Your task to perform on an android device: Search for vegetarian restaurants on Maps Image 0: 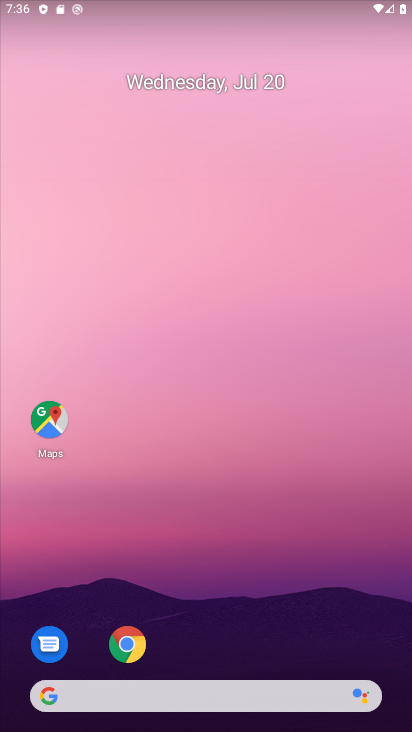
Step 0: drag from (198, 678) to (179, 353)
Your task to perform on an android device: Search for vegetarian restaurants on Maps Image 1: 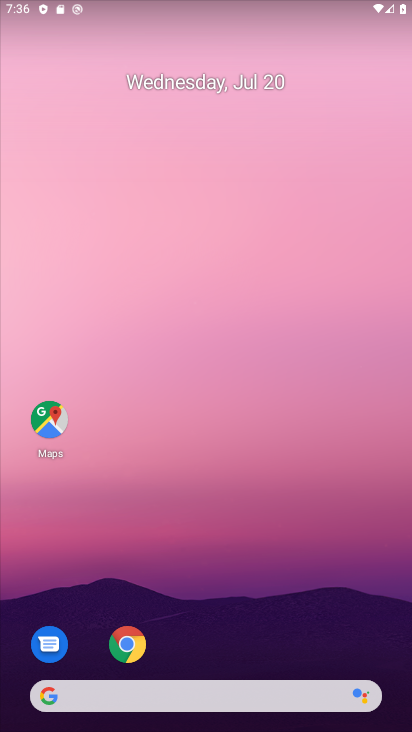
Step 1: drag from (176, 630) to (234, 198)
Your task to perform on an android device: Search for vegetarian restaurants on Maps Image 2: 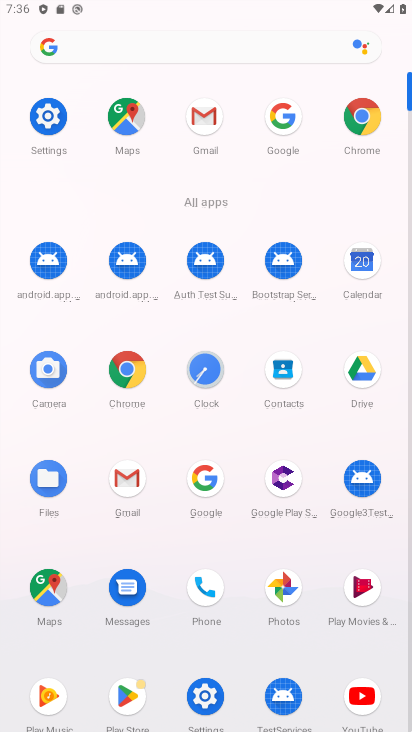
Step 2: click (36, 592)
Your task to perform on an android device: Search for vegetarian restaurants on Maps Image 3: 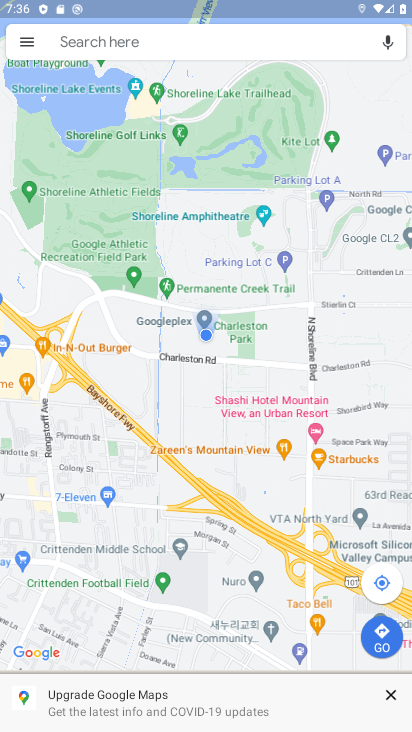
Step 3: click (140, 40)
Your task to perform on an android device: Search for vegetarian restaurants on Maps Image 4: 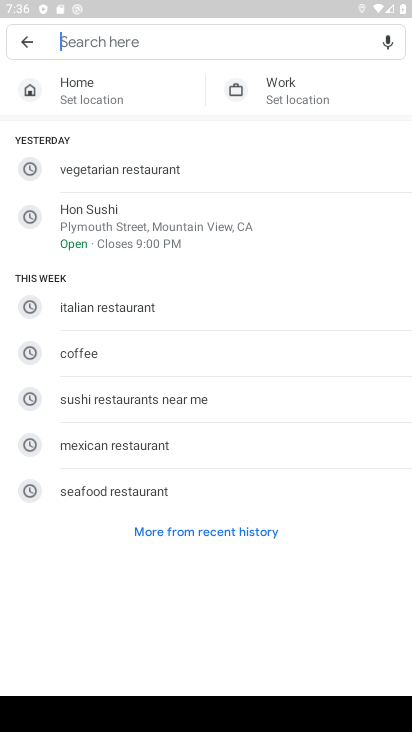
Step 4: click (137, 172)
Your task to perform on an android device: Search for vegetarian restaurants on Maps Image 5: 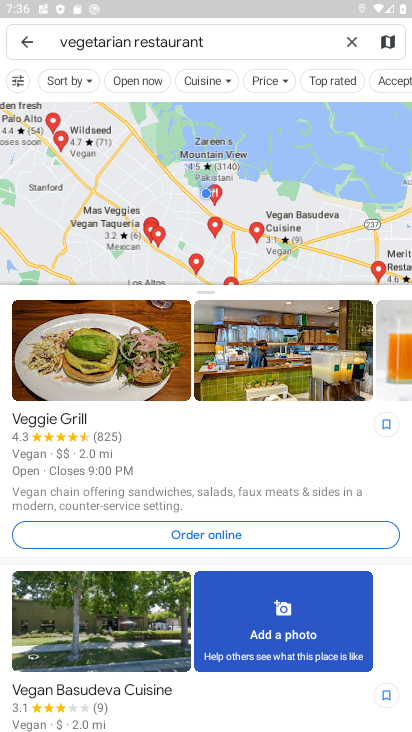
Step 5: task complete